Your task to perform on an android device: Search for the best rated kitchen reno kits on Lowes.com Image 0: 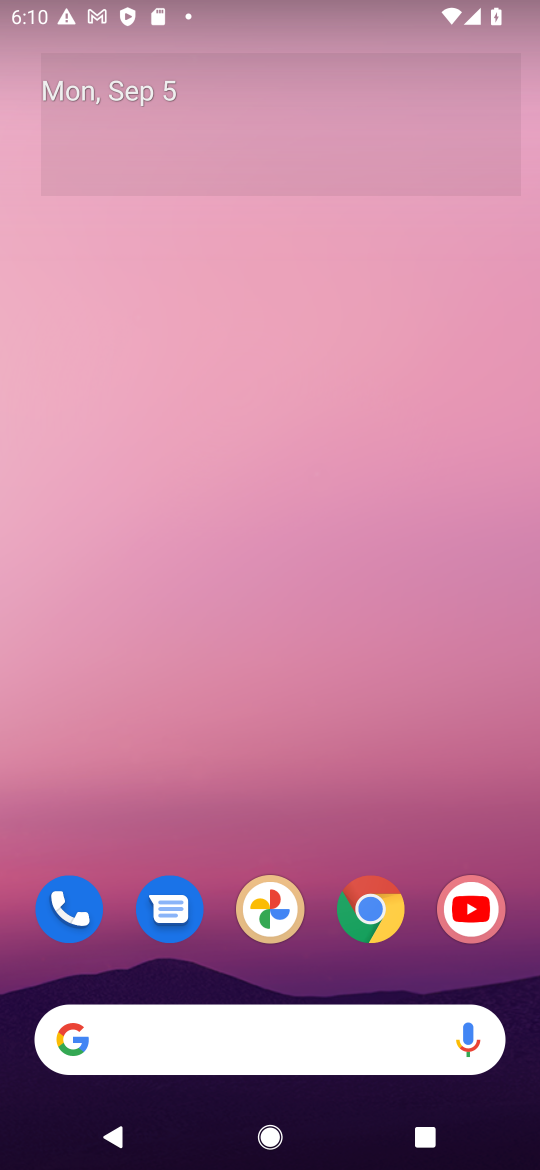
Step 0: drag from (247, 552) to (247, 209)
Your task to perform on an android device: Search for the best rated kitchen reno kits on Lowes.com Image 1: 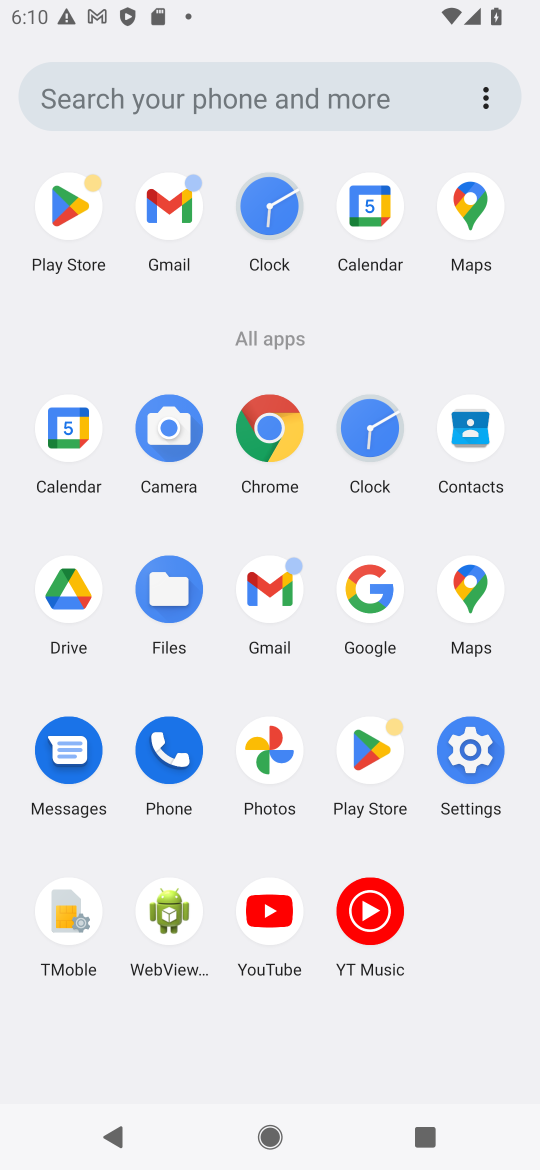
Step 1: click (371, 606)
Your task to perform on an android device: Search for the best rated kitchen reno kits on Lowes.com Image 2: 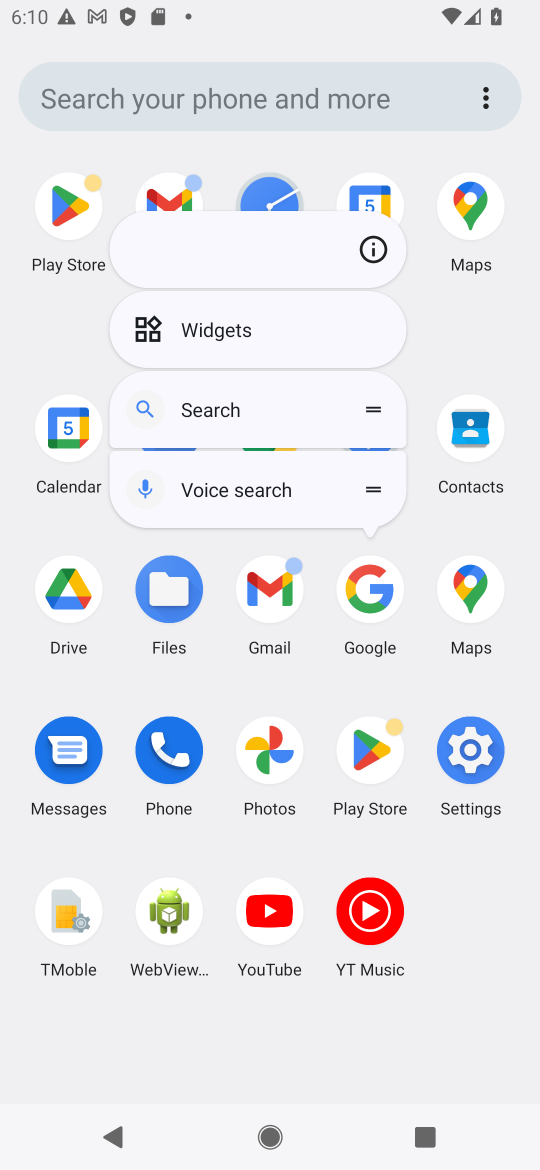
Step 2: click (371, 603)
Your task to perform on an android device: Search for the best rated kitchen reno kits on Lowes.com Image 3: 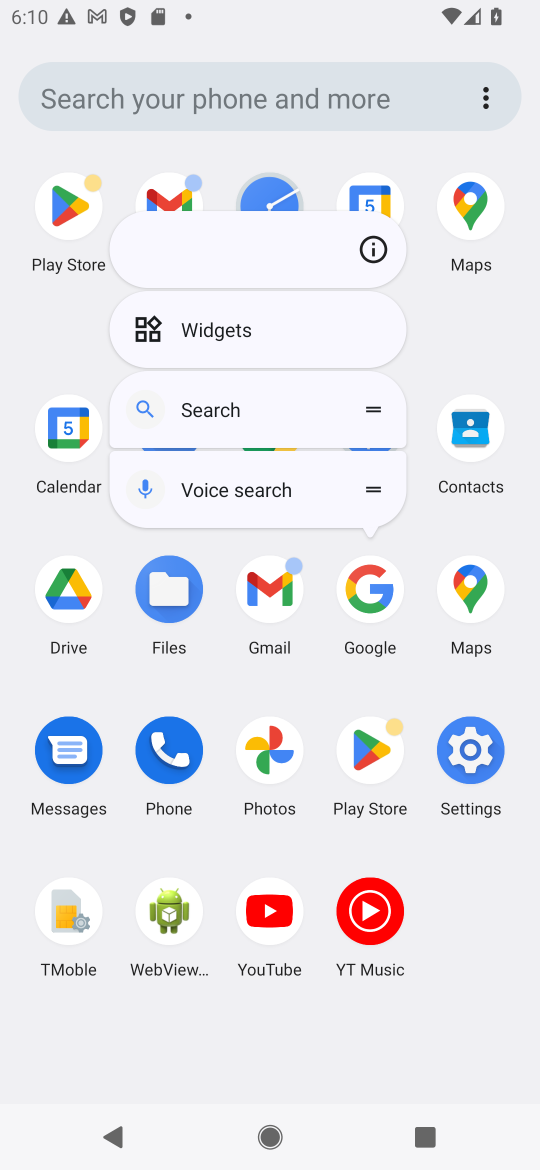
Step 3: click (364, 596)
Your task to perform on an android device: Search for the best rated kitchen reno kits on Lowes.com Image 4: 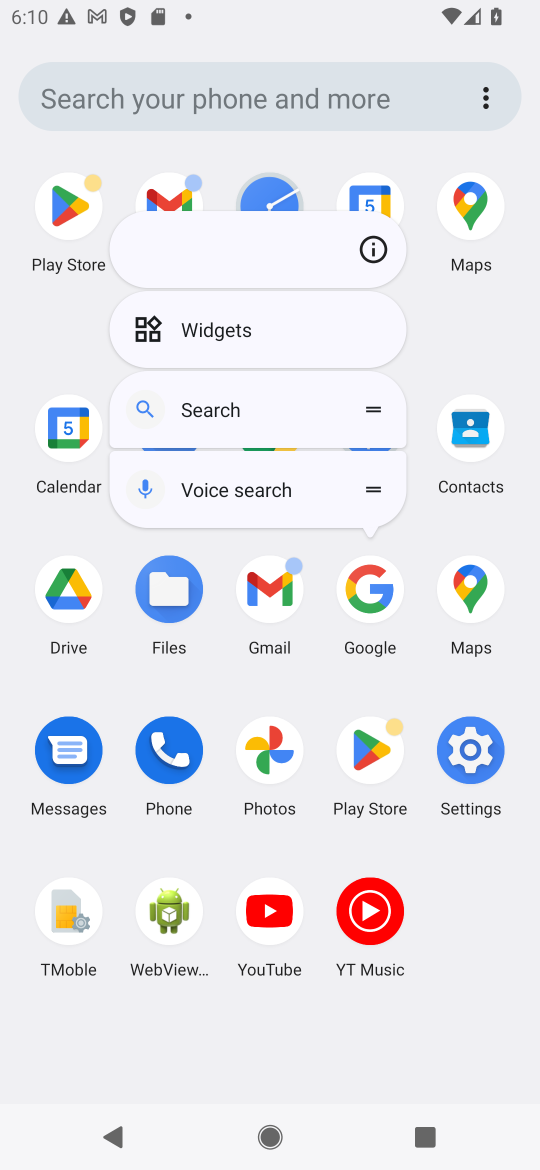
Step 4: click (377, 588)
Your task to perform on an android device: Search for the best rated kitchen reno kits on Lowes.com Image 5: 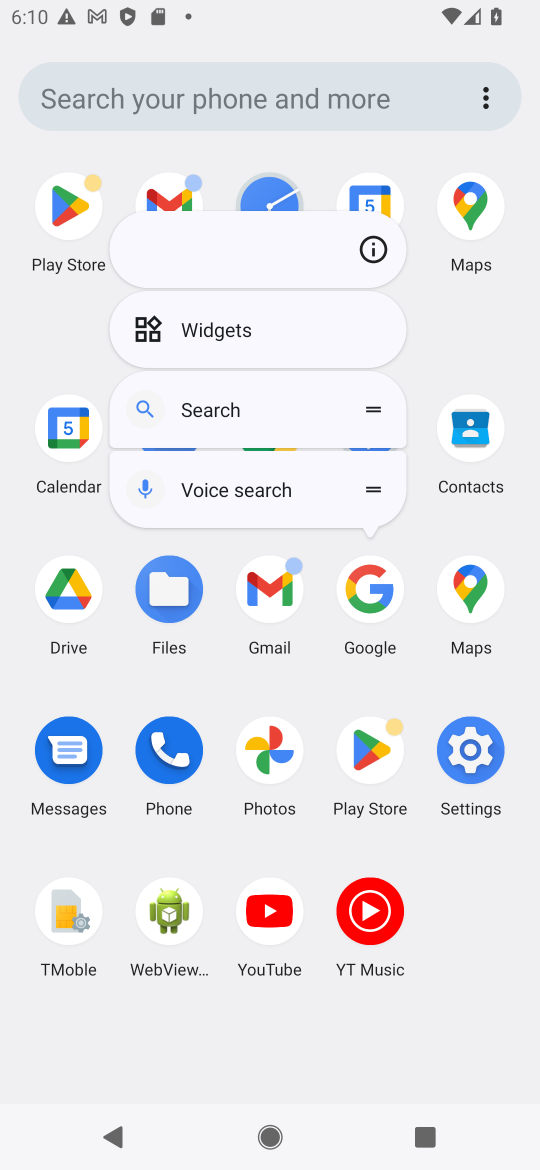
Step 5: click (377, 588)
Your task to perform on an android device: Search for the best rated kitchen reno kits on Lowes.com Image 6: 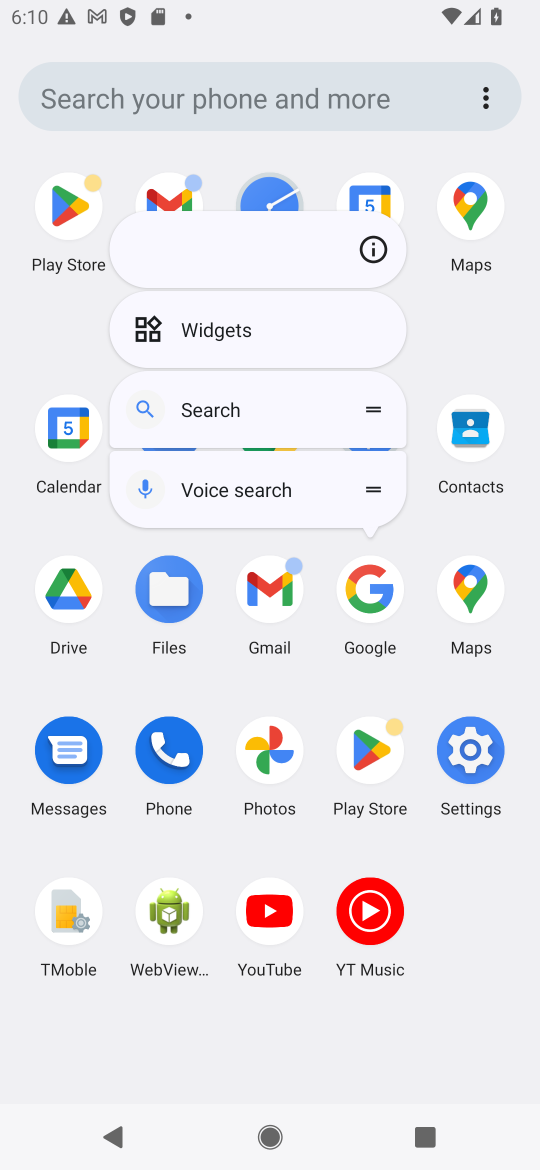
Step 6: click (377, 617)
Your task to perform on an android device: Search for the best rated kitchen reno kits on Lowes.com Image 7: 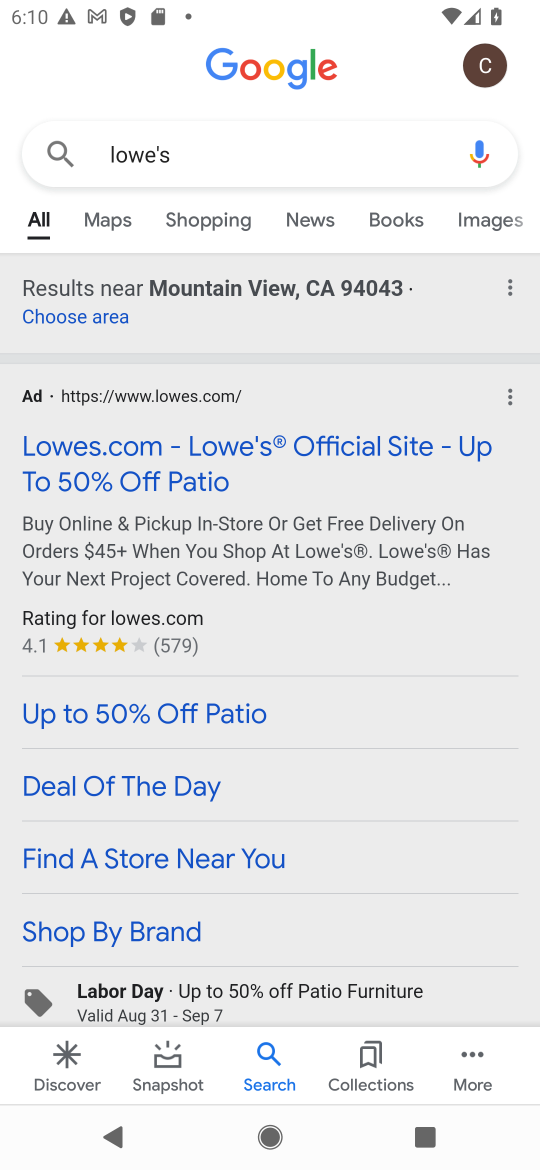
Step 7: click (169, 148)
Your task to perform on an android device: Search for the best rated kitchen reno kits on Lowes.com Image 8: 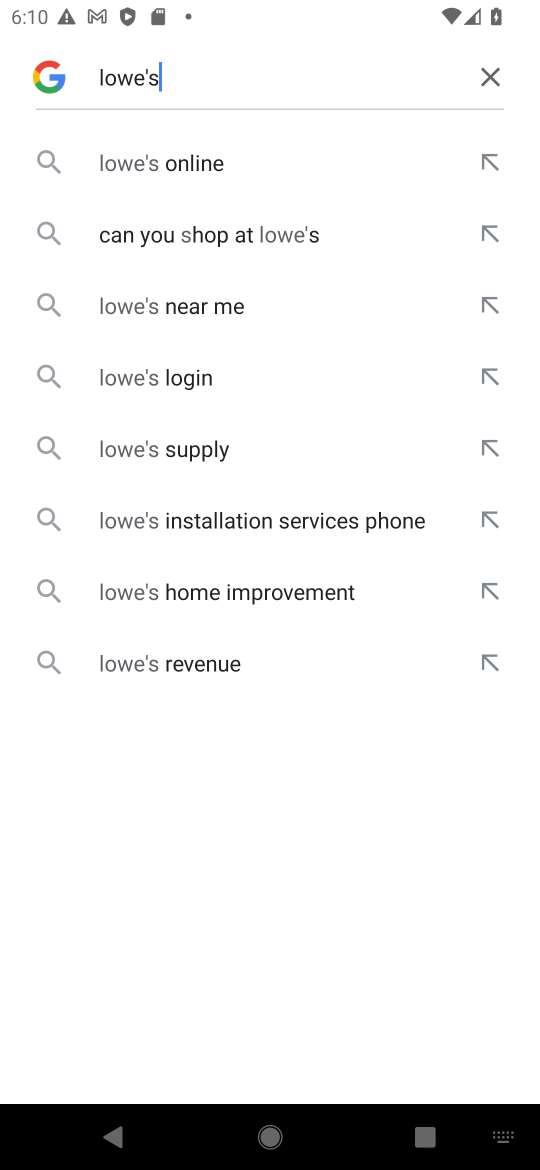
Step 8: click (180, 160)
Your task to perform on an android device: Search for the best rated kitchen reno kits on Lowes.com Image 9: 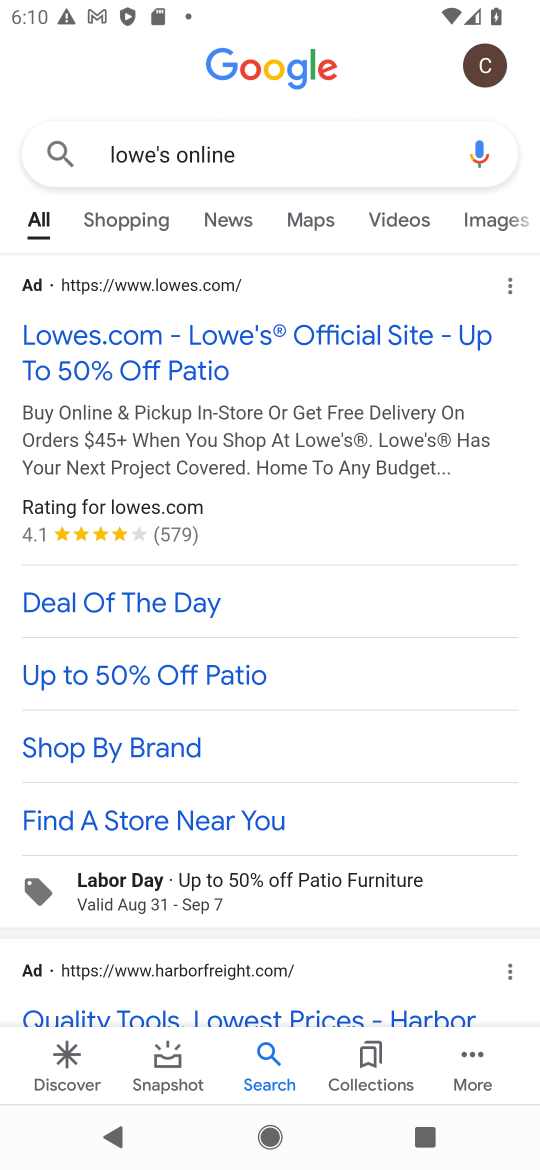
Step 9: click (151, 337)
Your task to perform on an android device: Search for the best rated kitchen reno kits on Lowes.com Image 10: 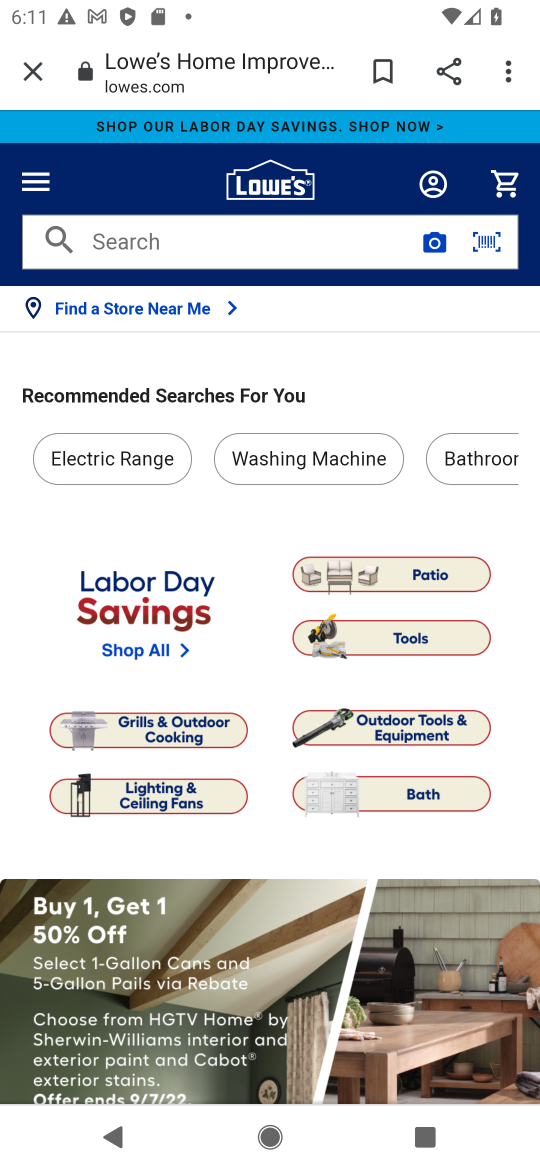
Step 10: click (263, 231)
Your task to perform on an android device: Search for the best rated kitchen reno kits on Lowes.com Image 11: 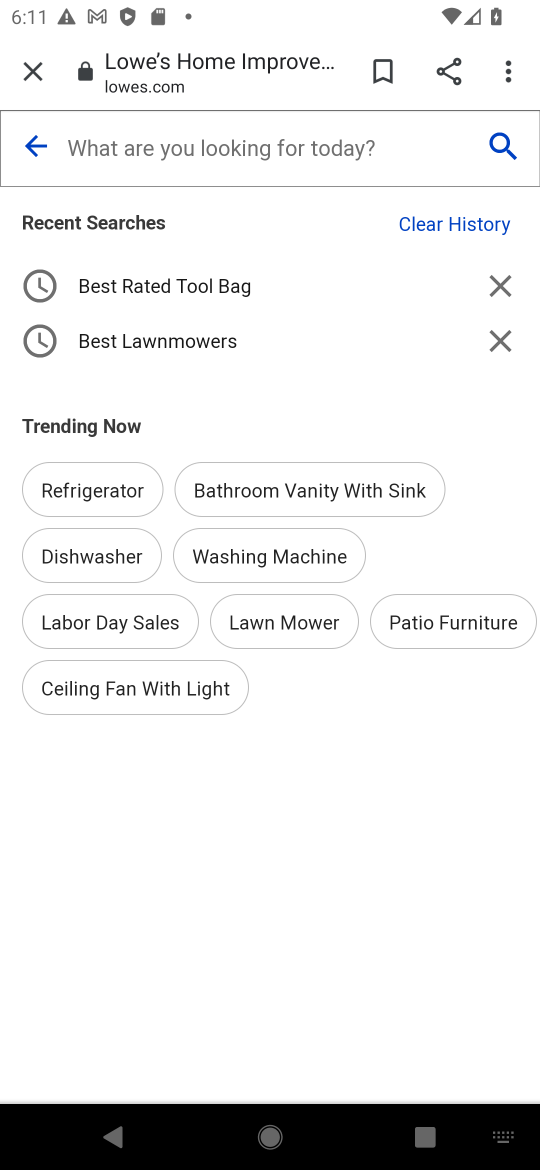
Step 11: type "best rated kitchen reno kits"
Your task to perform on an android device: Search for the best rated kitchen reno kits on Lowes.com Image 12: 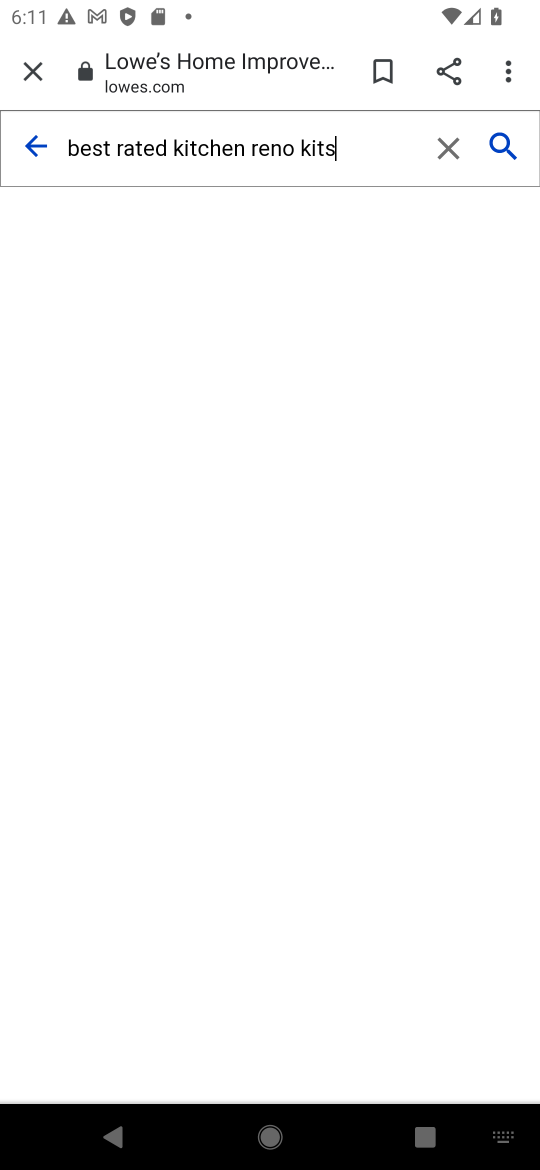
Step 12: click (505, 150)
Your task to perform on an android device: Search for the best rated kitchen reno kits on Lowes.com Image 13: 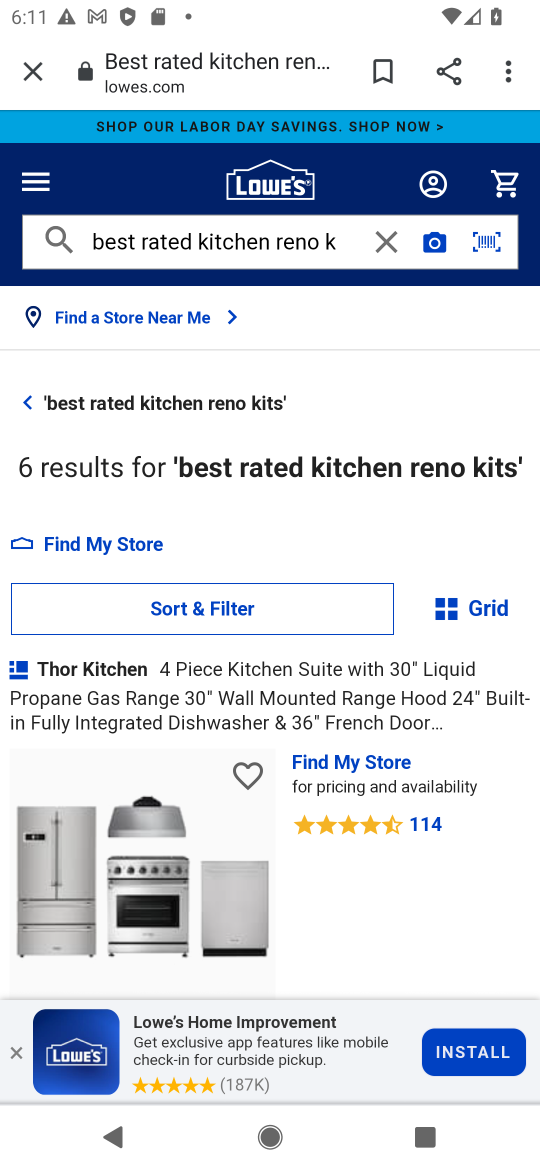
Step 13: task complete